Your task to perform on an android device: turn on showing notifications on the lock screen Image 0: 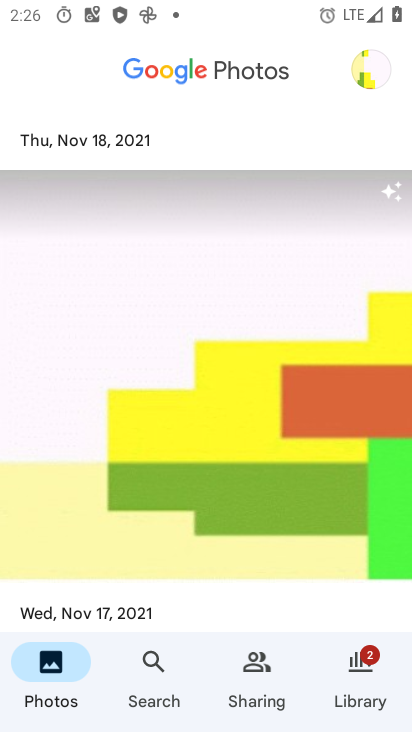
Step 0: press home button
Your task to perform on an android device: turn on showing notifications on the lock screen Image 1: 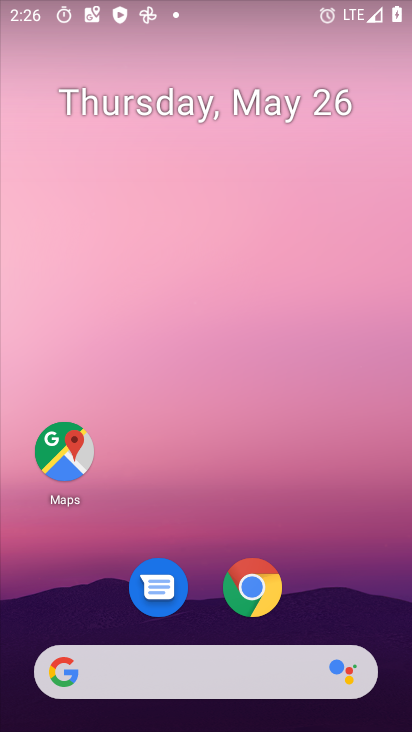
Step 1: drag from (368, 605) to (378, 176)
Your task to perform on an android device: turn on showing notifications on the lock screen Image 2: 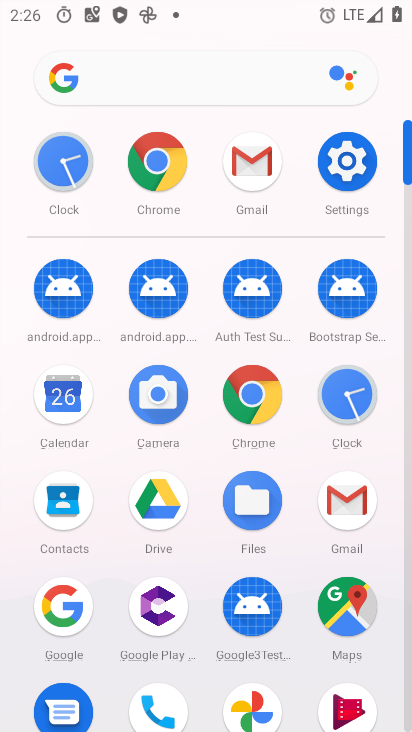
Step 2: click (354, 173)
Your task to perform on an android device: turn on showing notifications on the lock screen Image 3: 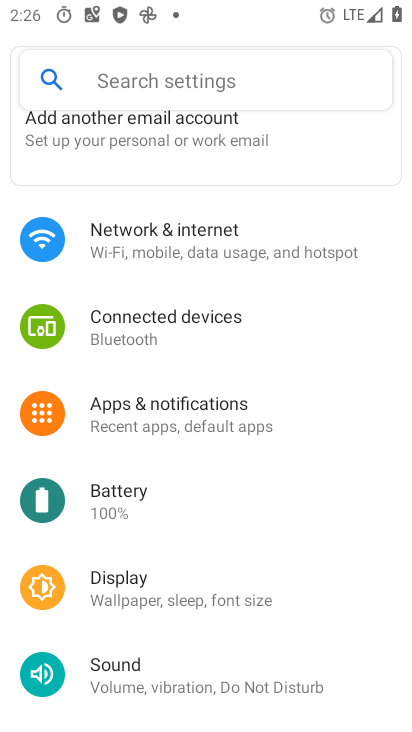
Step 3: drag from (319, 539) to (328, 446)
Your task to perform on an android device: turn on showing notifications on the lock screen Image 4: 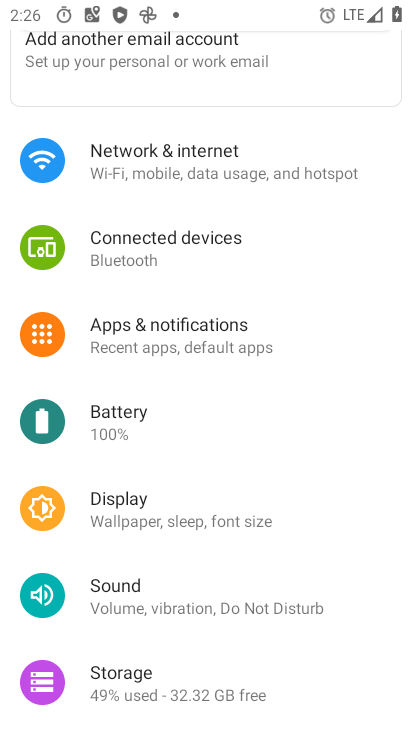
Step 4: drag from (321, 577) to (346, 478)
Your task to perform on an android device: turn on showing notifications on the lock screen Image 5: 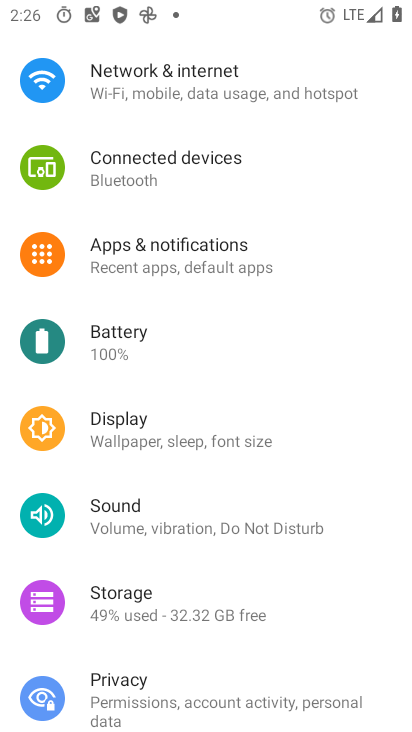
Step 5: drag from (336, 589) to (351, 477)
Your task to perform on an android device: turn on showing notifications on the lock screen Image 6: 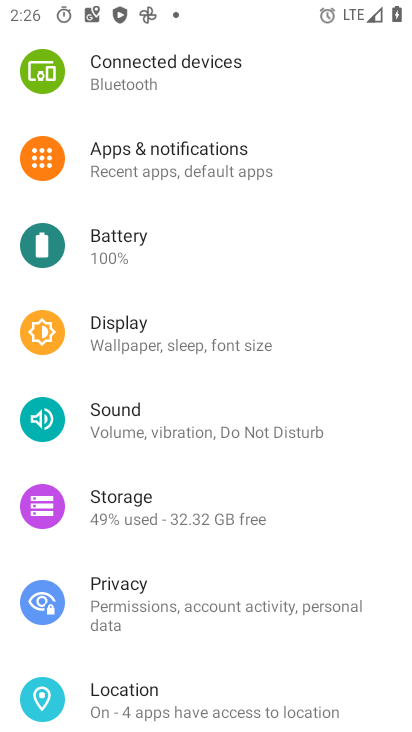
Step 6: drag from (336, 633) to (352, 527)
Your task to perform on an android device: turn on showing notifications on the lock screen Image 7: 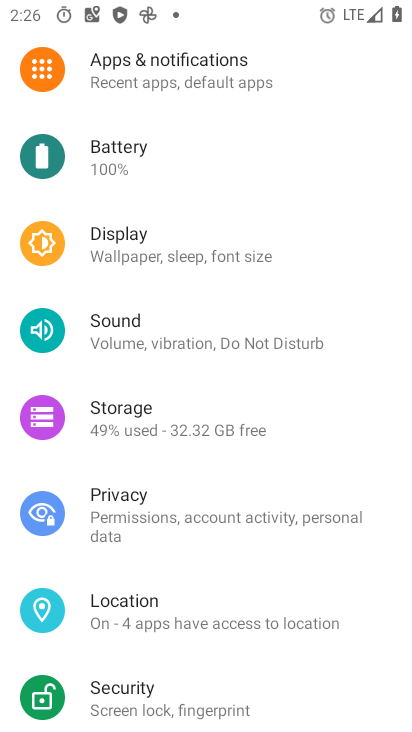
Step 7: drag from (338, 604) to (342, 484)
Your task to perform on an android device: turn on showing notifications on the lock screen Image 8: 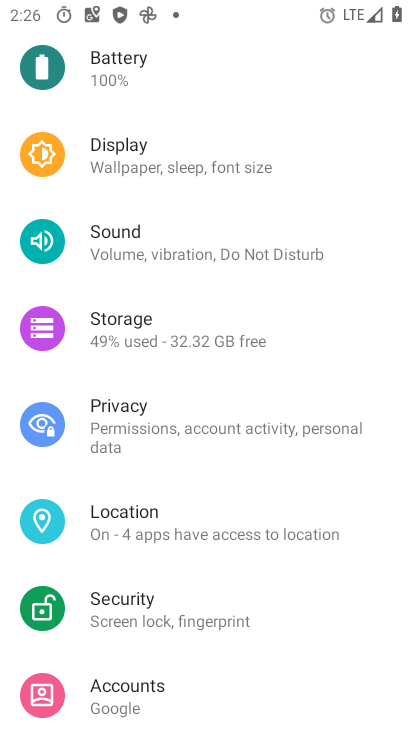
Step 8: drag from (306, 622) to (339, 496)
Your task to perform on an android device: turn on showing notifications on the lock screen Image 9: 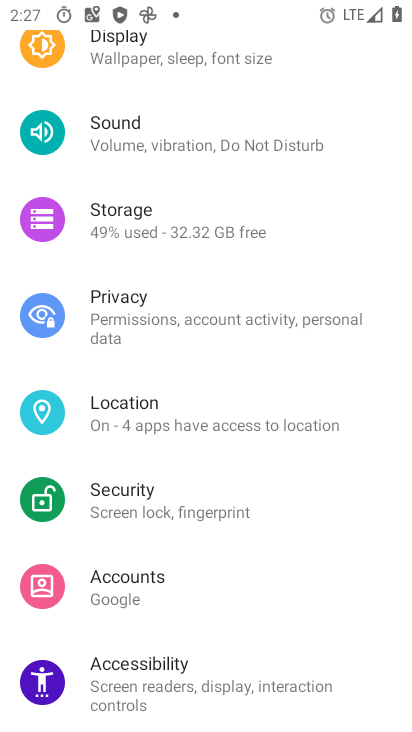
Step 9: drag from (329, 562) to (340, 401)
Your task to perform on an android device: turn on showing notifications on the lock screen Image 10: 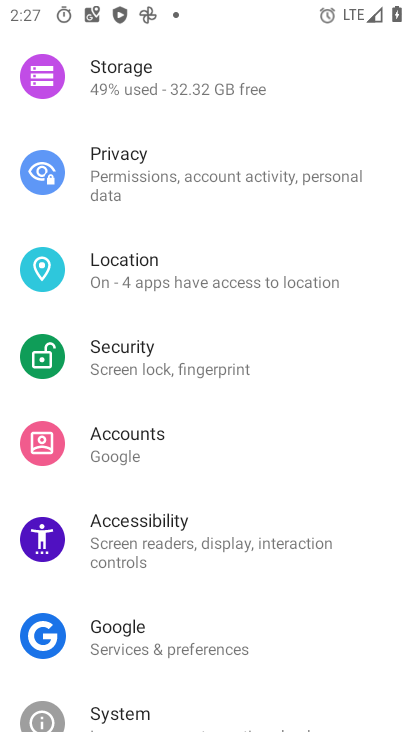
Step 10: drag from (342, 610) to (349, 362)
Your task to perform on an android device: turn on showing notifications on the lock screen Image 11: 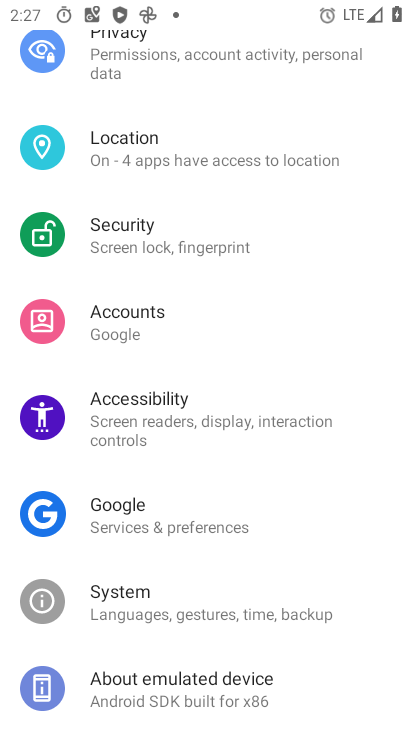
Step 11: drag from (330, 538) to (355, 423)
Your task to perform on an android device: turn on showing notifications on the lock screen Image 12: 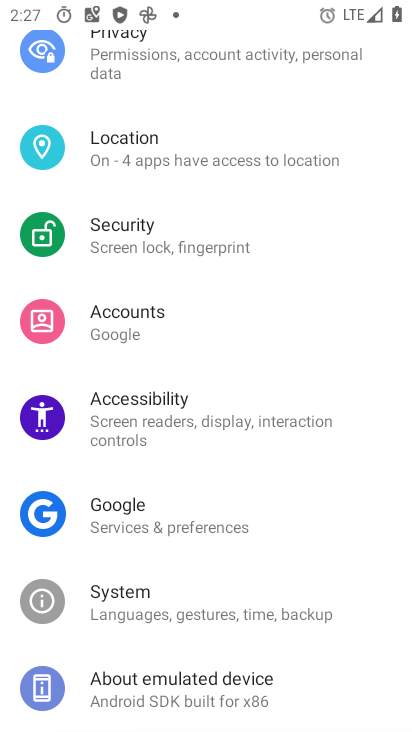
Step 12: drag from (367, 372) to (370, 464)
Your task to perform on an android device: turn on showing notifications on the lock screen Image 13: 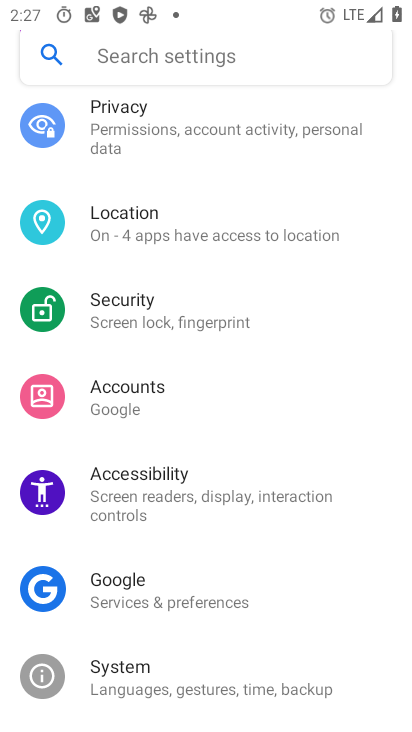
Step 13: drag from (356, 336) to (358, 477)
Your task to perform on an android device: turn on showing notifications on the lock screen Image 14: 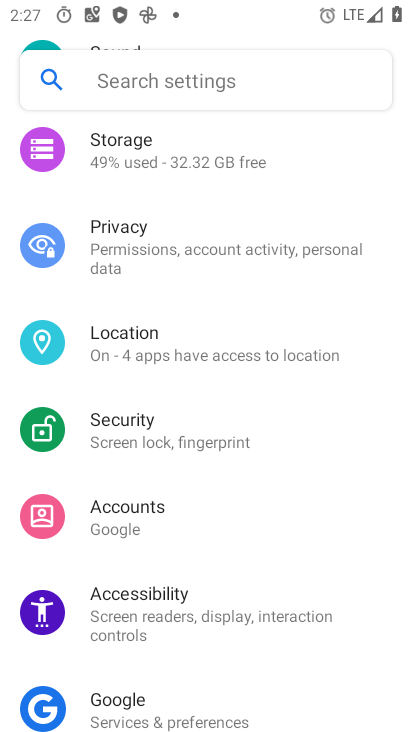
Step 14: drag from (355, 362) to (350, 444)
Your task to perform on an android device: turn on showing notifications on the lock screen Image 15: 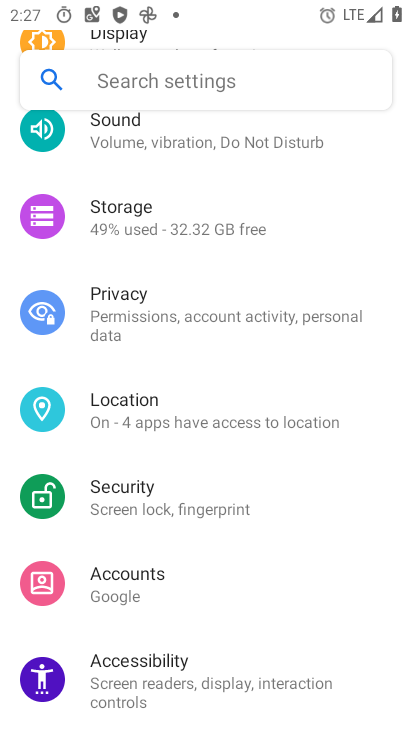
Step 15: drag from (367, 344) to (367, 454)
Your task to perform on an android device: turn on showing notifications on the lock screen Image 16: 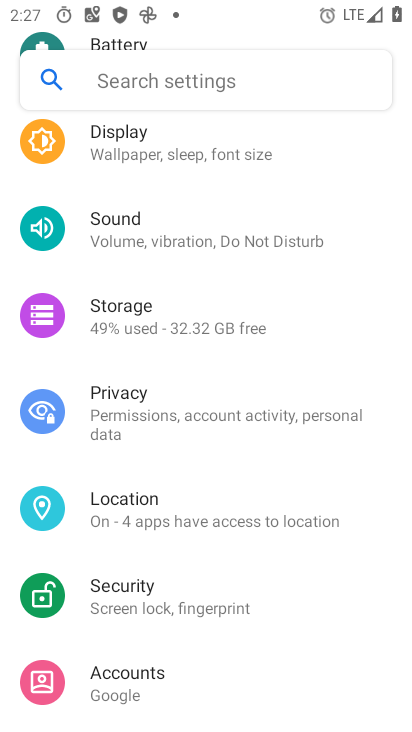
Step 16: drag from (355, 344) to (348, 443)
Your task to perform on an android device: turn on showing notifications on the lock screen Image 17: 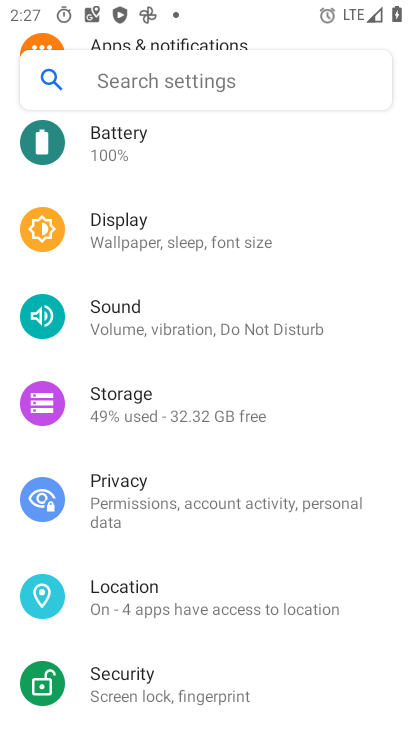
Step 17: drag from (345, 277) to (343, 393)
Your task to perform on an android device: turn on showing notifications on the lock screen Image 18: 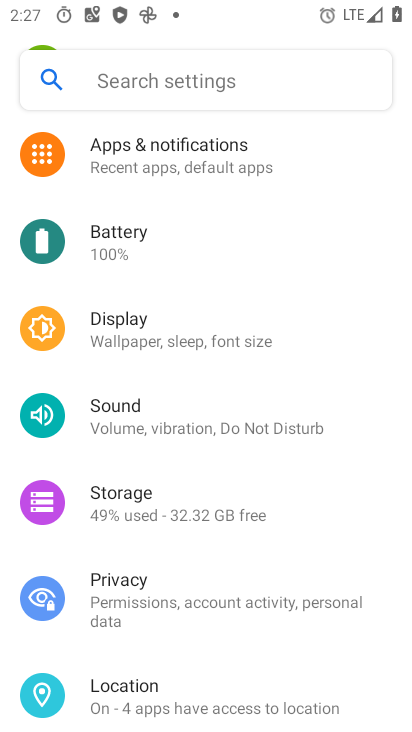
Step 18: drag from (338, 238) to (332, 425)
Your task to perform on an android device: turn on showing notifications on the lock screen Image 19: 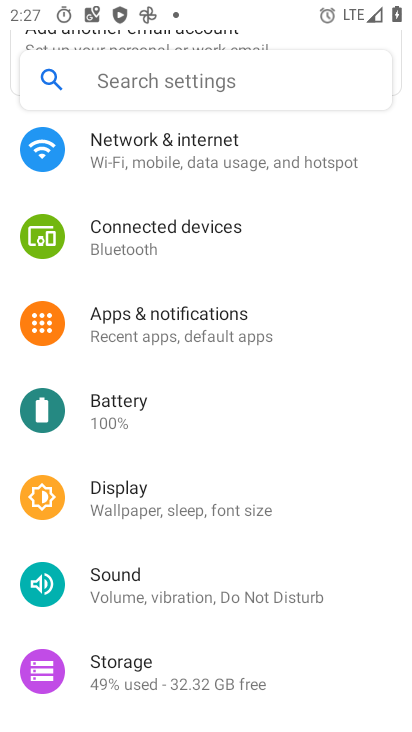
Step 19: drag from (349, 244) to (341, 441)
Your task to perform on an android device: turn on showing notifications on the lock screen Image 20: 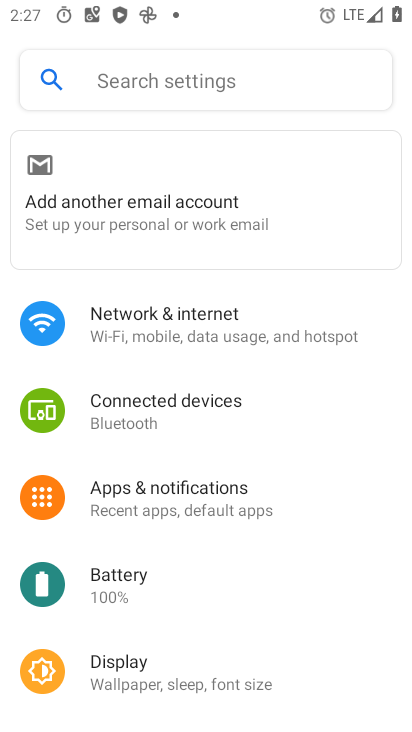
Step 20: click (246, 511)
Your task to perform on an android device: turn on showing notifications on the lock screen Image 21: 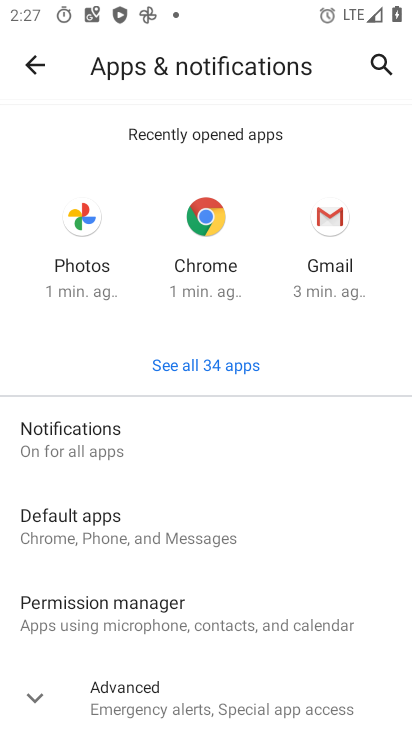
Step 21: click (113, 440)
Your task to perform on an android device: turn on showing notifications on the lock screen Image 22: 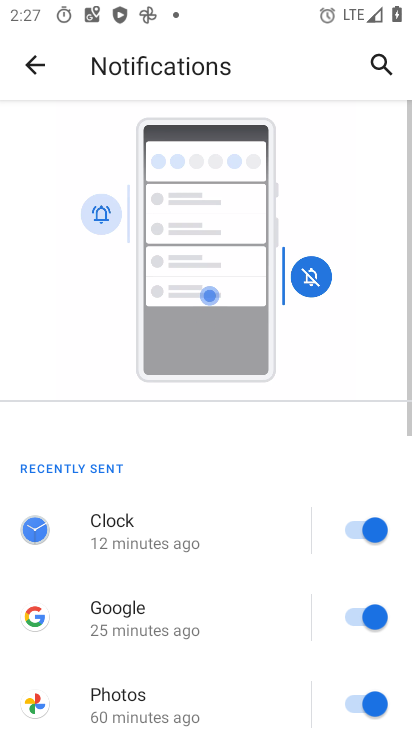
Step 22: drag from (266, 503) to (257, 339)
Your task to perform on an android device: turn on showing notifications on the lock screen Image 23: 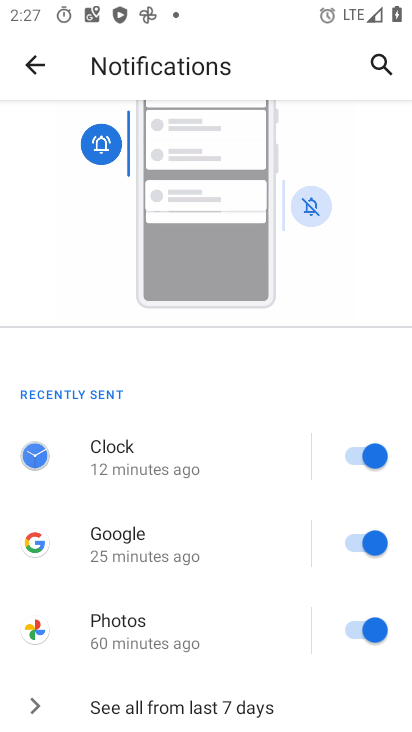
Step 23: drag from (255, 531) to (245, 391)
Your task to perform on an android device: turn on showing notifications on the lock screen Image 24: 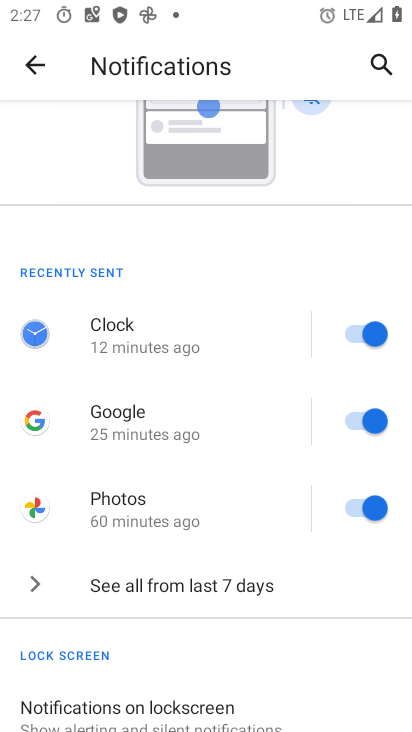
Step 24: drag from (256, 606) to (267, 423)
Your task to perform on an android device: turn on showing notifications on the lock screen Image 25: 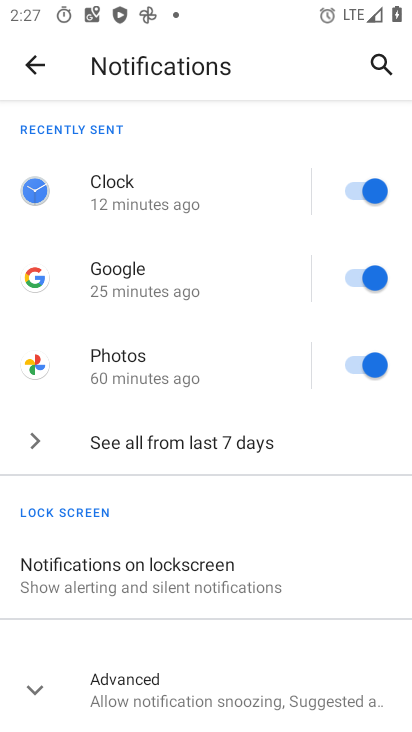
Step 25: click (215, 563)
Your task to perform on an android device: turn on showing notifications on the lock screen Image 26: 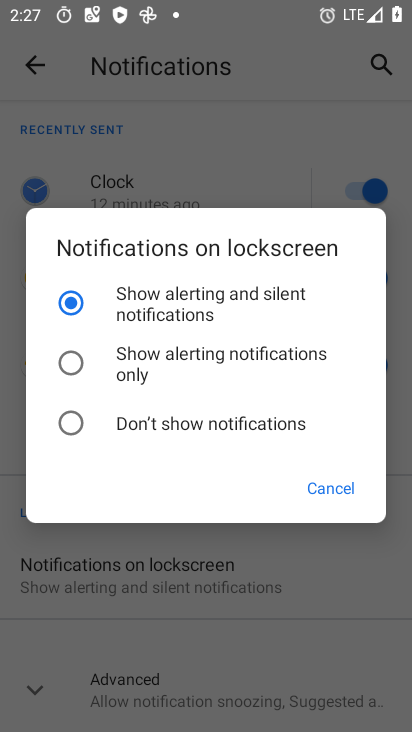
Step 26: task complete